Your task to perform on an android device: Go to settings Image 0: 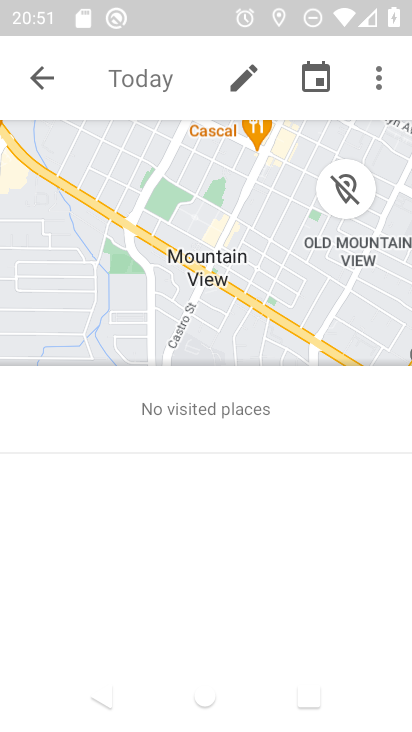
Step 0: press home button
Your task to perform on an android device: Go to settings Image 1: 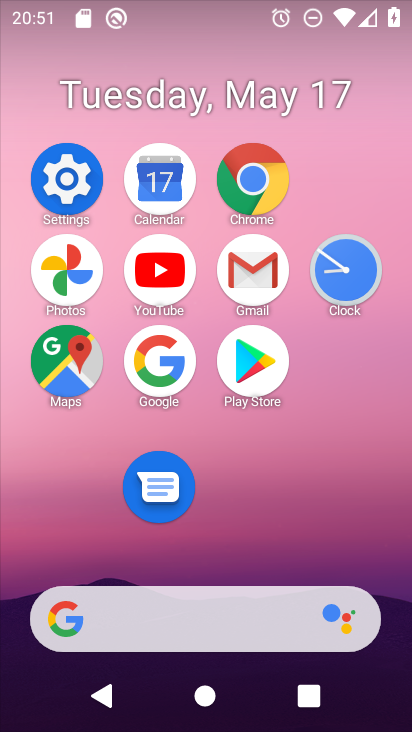
Step 1: click (84, 188)
Your task to perform on an android device: Go to settings Image 2: 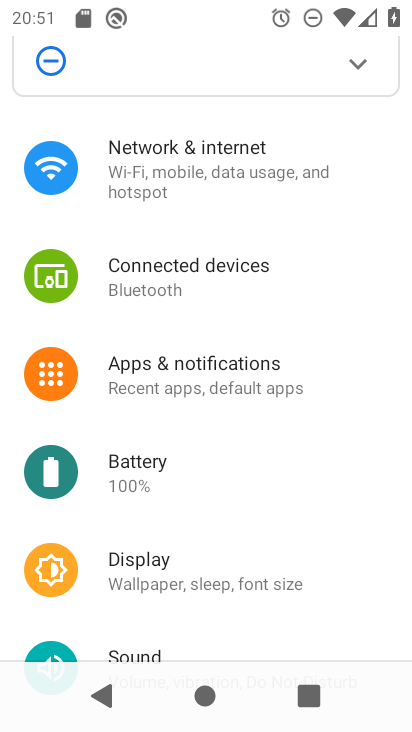
Step 2: task complete